Your task to perform on an android device: toggle notification dots Image 0: 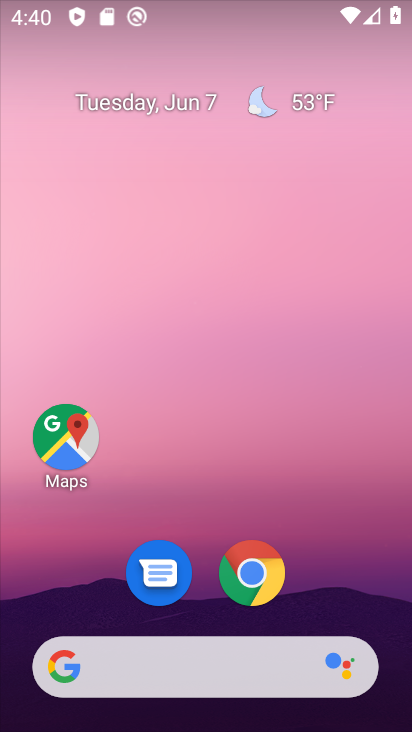
Step 0: drag from (230, 563) to (230, 228)
Your task to perform on an android device: toggle notification dots Image 1: 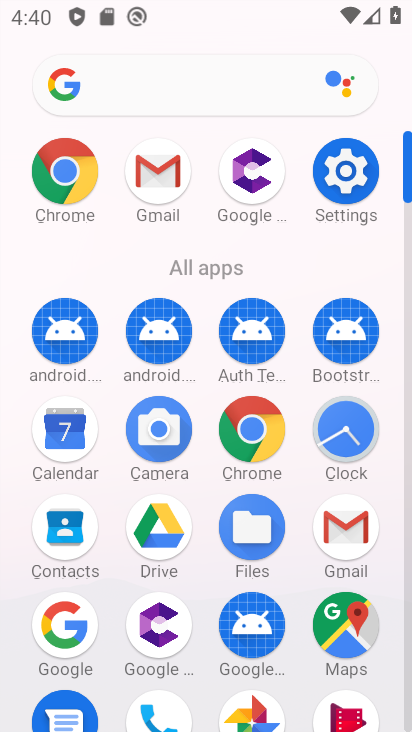
Step 1: click (348, 179)
Your task to perform on an android device: toggle notification dots Image 2: 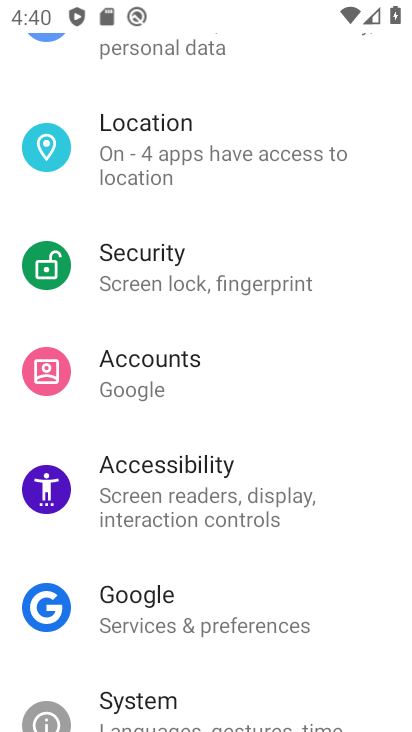
Step 2: drag from (162, 137) to (215, 627)
Your task to perform on an android device: toggle notification dots Image 3: 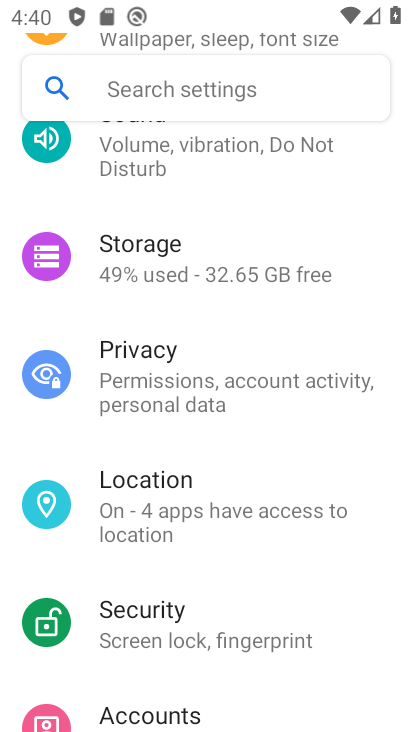
Step 3: drag from (206, 399) to (217, 636)
Your task to perform on an android device: toggle notification dots Image 4: 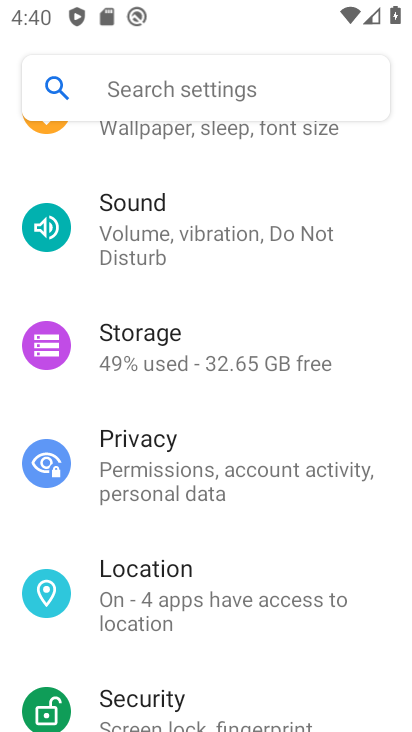
Step 4: drag from (205, 204) to (268, 608)
Your task to perform on an android device: toggle notification dots Image 5: 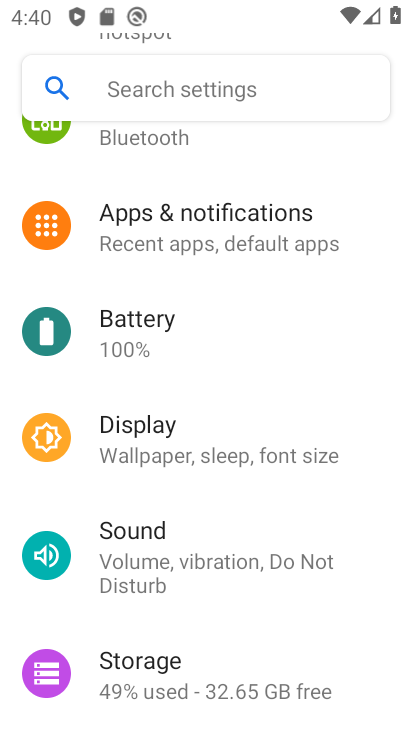
Step 5: click (159, 237)
Your task to perform on an android device: toggle notification dots Image 6: 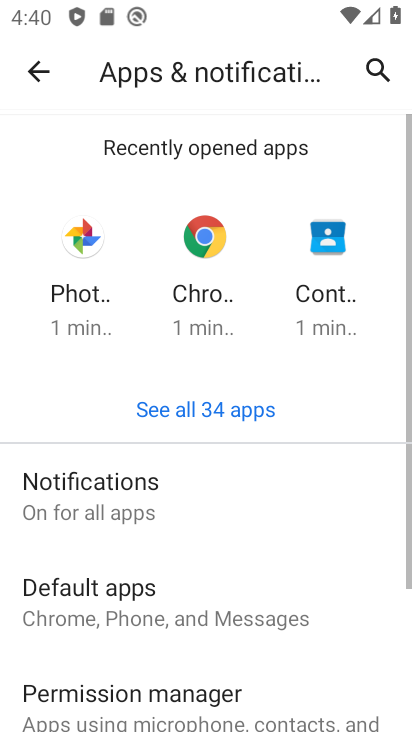
Step 6: click (95, 499)
Your task to perform on an android device: toggle notification dots Image 7: 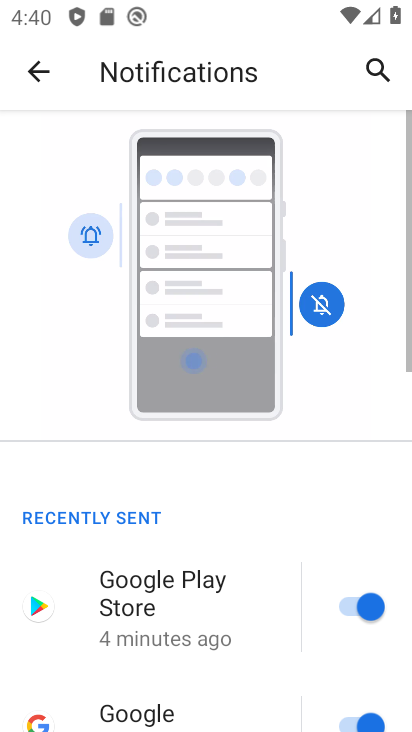
Step 7: drag from (228, 712) to (236, 222)
Your task to perform on an android device: toggle notification dots Image 8: 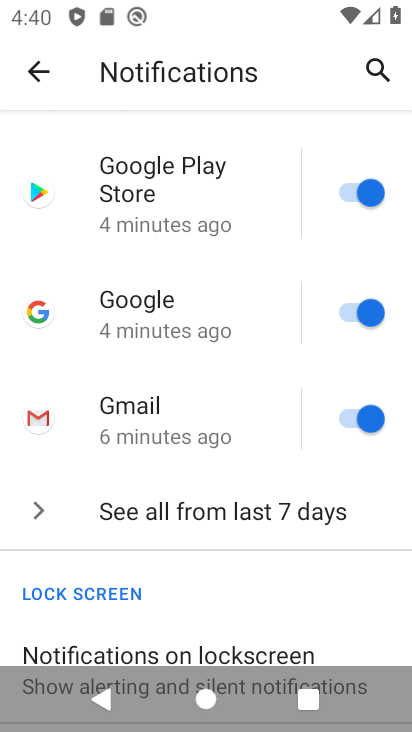
Step 8: drag from (294, 603) to (293, 239)
Your task to perform on an android device: toggle notification dots Image 9: 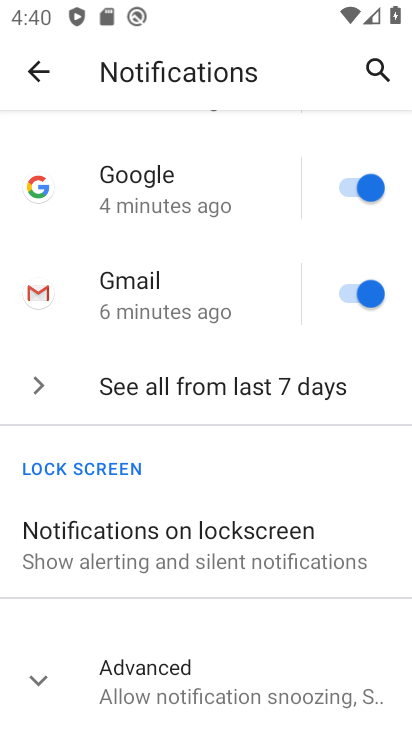
Step 9: click (193, 679)
Your task to perform on an android device: toggle notification dots Image 10: 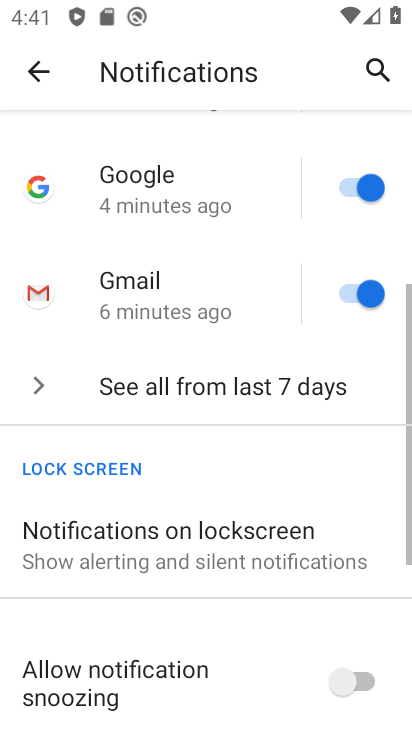
Step 10: drag from (241, 714) to (241, 317)
Your task to perform on an android device: toggle notification dots Image 11: 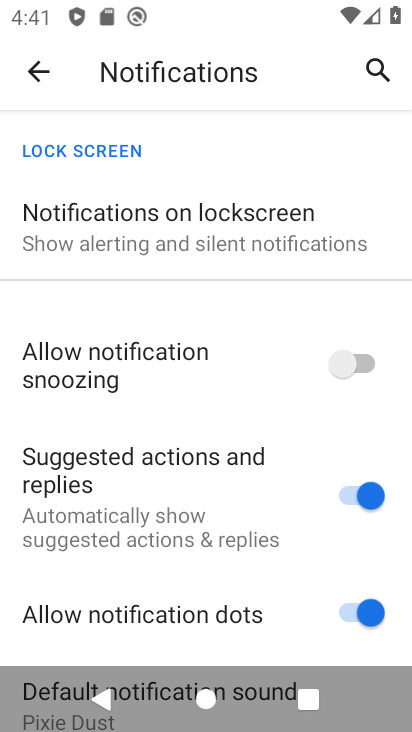
Step 11: click (345, 610)
Your task to perform on an android device: toggle notification dots Image 12: 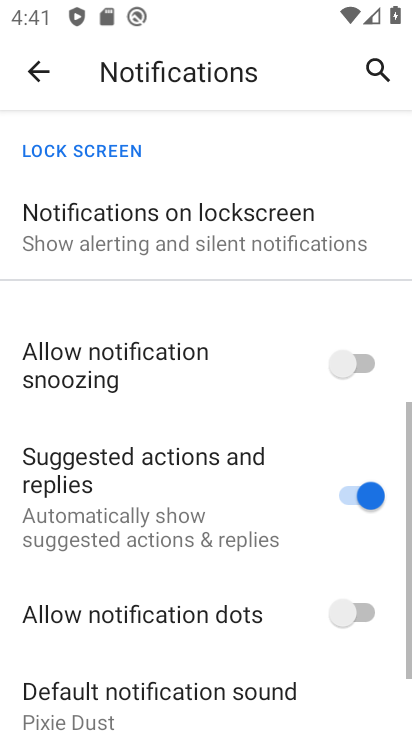
Step 12: task complete